Your task to perform on an android device: What is the news today? Image 0: 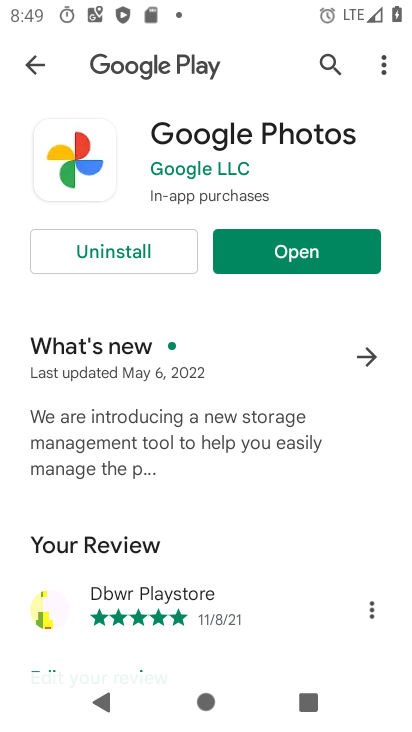
Step 0: press home button
Your task to perform on an android device: What is the news today? Image 1: 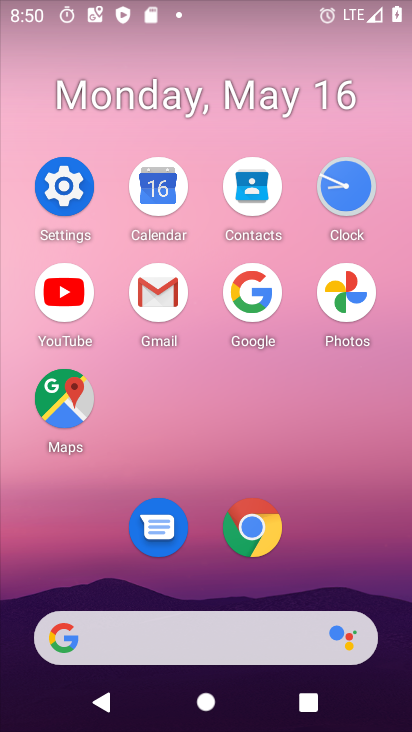
Step 1: click (241, 284)
Your task to perform on an android device: What is the news today? Image 2: 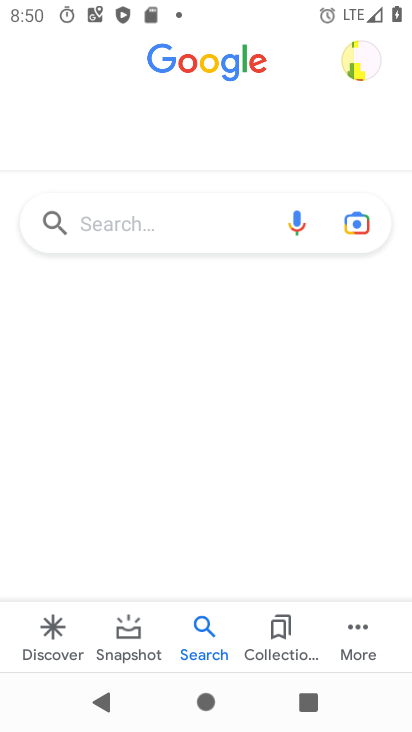
Step 2: click (172, 220)
Your task to perform on an android device: What is the news today? Image 3: 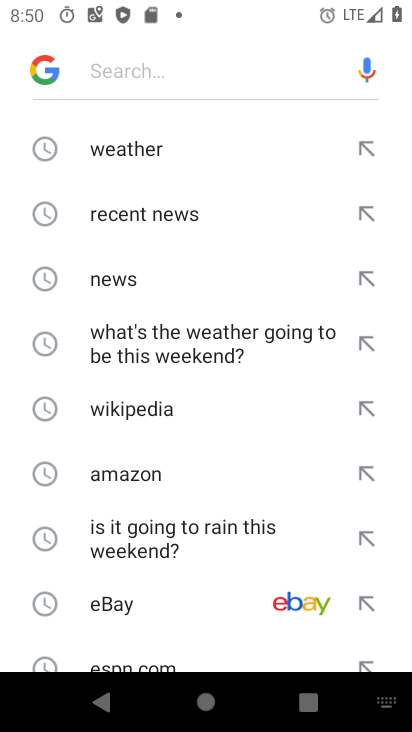
Step 3: click (137, 276)
Your task to perform on an android device: What is the news today? Image 4: 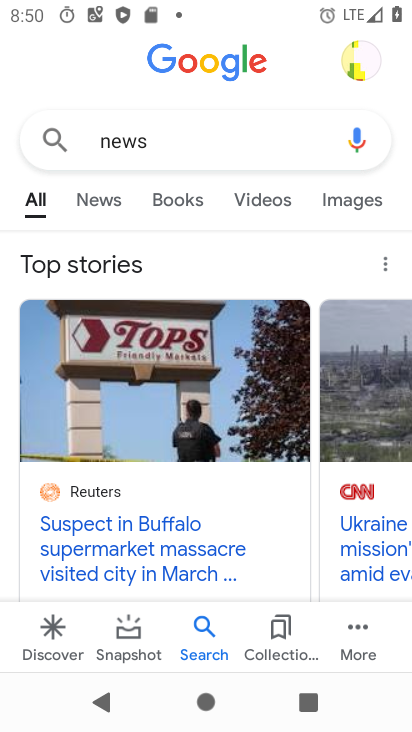
Step 4: task complete